Your task to perform on an android device: search for starred emails in the gmail app Image 0: 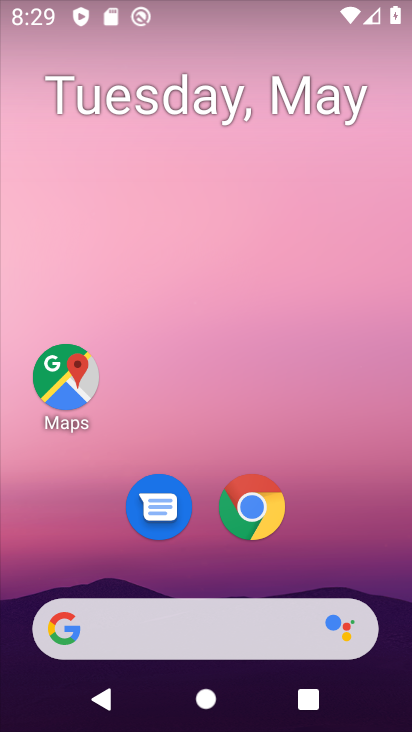
Step 0: drag from (385, 572) to (348, 232)
Your task to perform on an android device: search for starred emails in the gmail app Image 1: 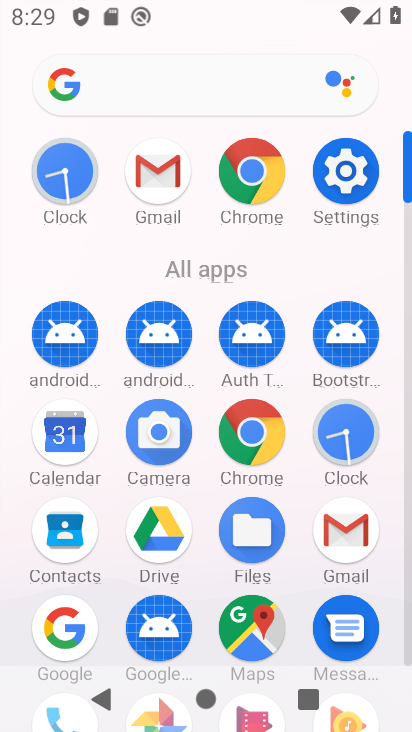
Step 1: click (163, 197)
Your task to perform on an android device: search for starred emails in the gmail app Image 2: 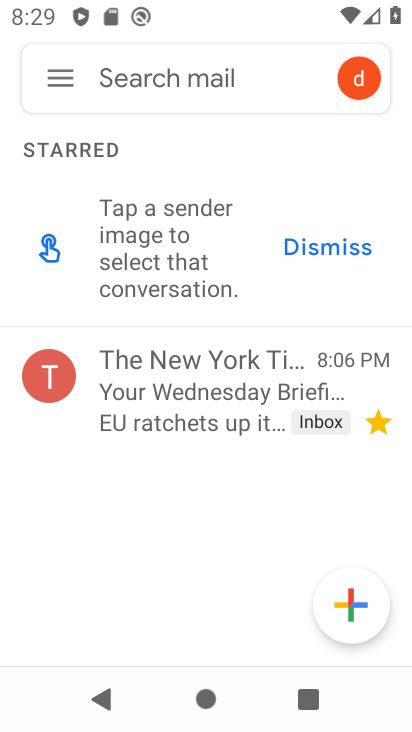
Step 2: task complete